Your task to perform on an android device: choose inbox layout in the gmail app Image 0: 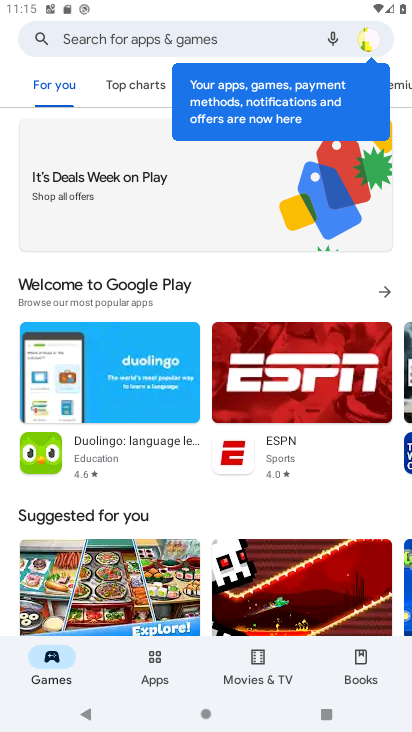
Step 0: press home button
Your task to perform on an android device: choose inbox layout in the gmail app Image 1: 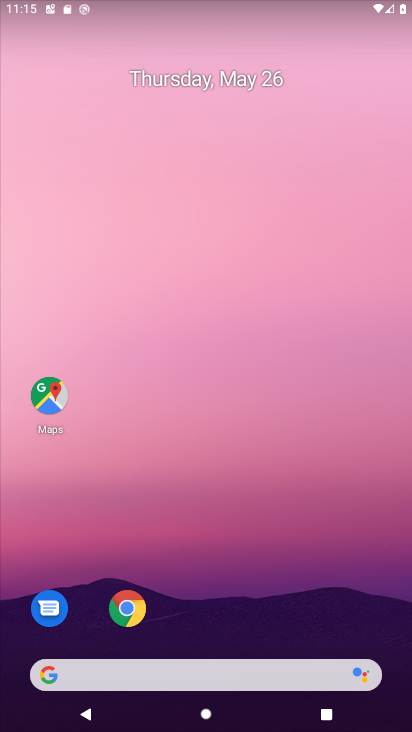
Step 1: drag from (396, 679) to (351, 193)
Your task to perform on an android device: choose inbox layout in the gmail app Image 2: 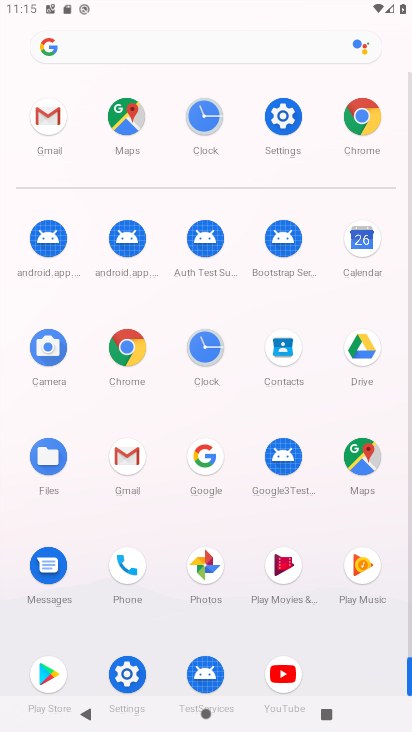
Step 2: click (126, 460)
Your task to perform on an android device: choose inbox layout in the gmail app Image 3: 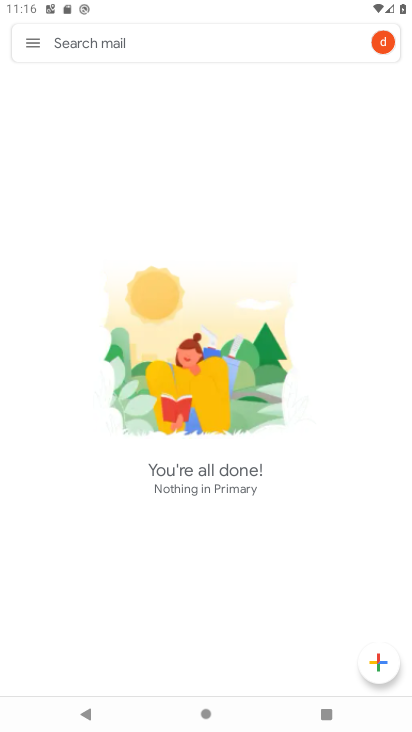
Step 3: click (36, 50)
Your task to perform on an android device: choose inbox layout in the gmail app Image 4: 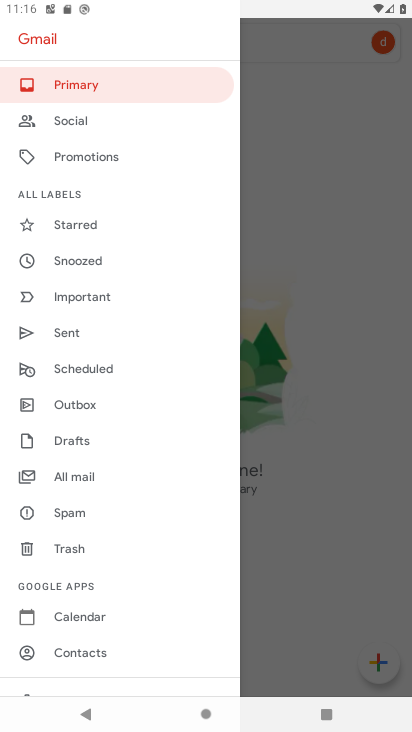
Step 4: click (104, 86)
Your task to perform on an android device: choose inbox layout in the gmail app Image 5: 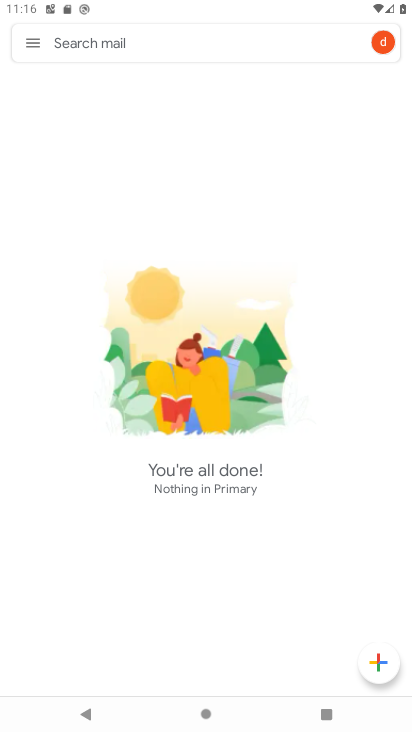
Step 5: click (36, 41)
Your task to perform on an android device: choose inbox layout in the gmail app Image 6: 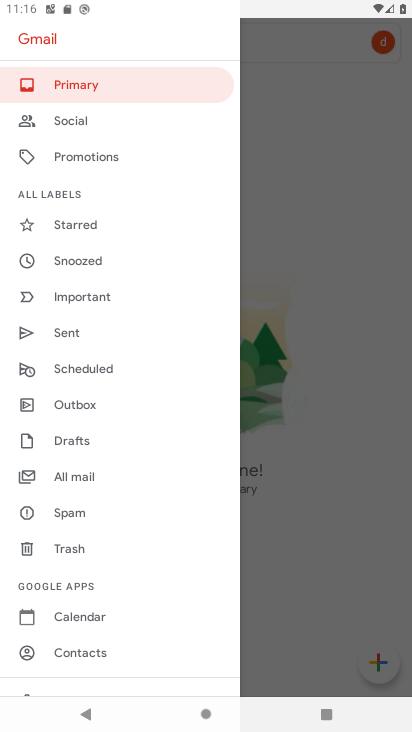
Step 6: click (92, 88)
Your task to perform on an android device: choose inbox layout in the gmail app Image 7: 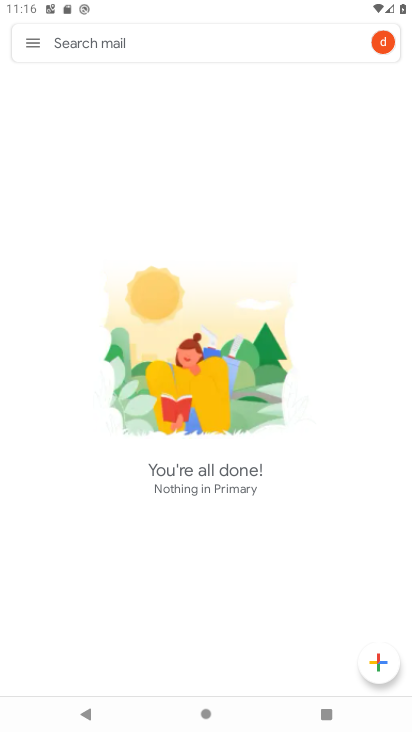
Step 7: click (31, 45)
Your task to perform on an android device: choose inbox layout in the gmail app Image 8: 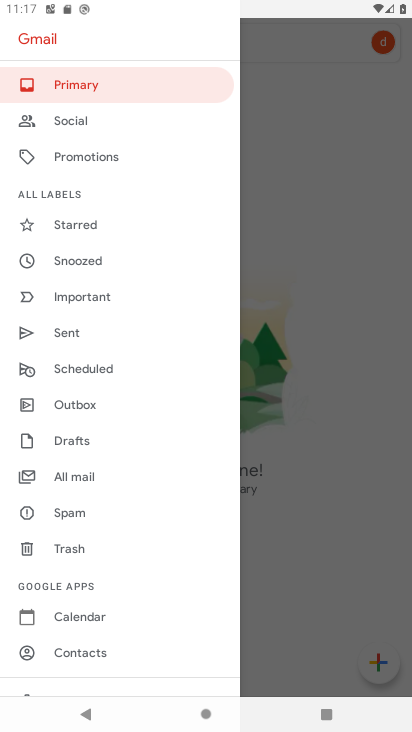
Step 8: drag from (183, 615) to (172, 305)
Your task to perform on an android device: choose inbox layout in the gmail app Image 9: 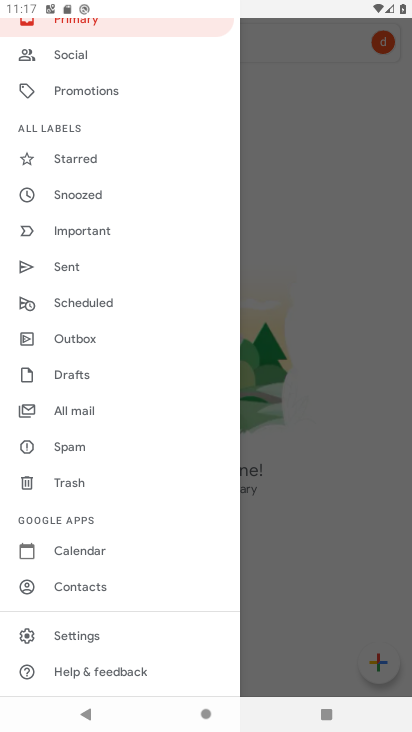
Step 9: click (74, 633)
Your task to perform on an android device: choose inbox layout in the gmail app Image 10: 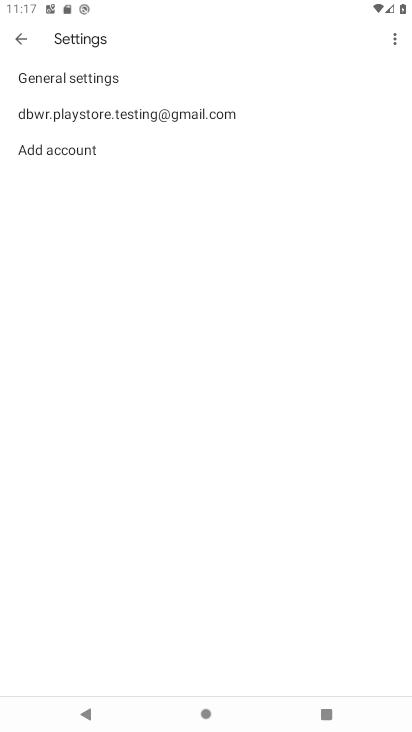
Step 10: click (72, 117)
Your task to perform on an android device: choose inbox layout in the gmail app Image 11: 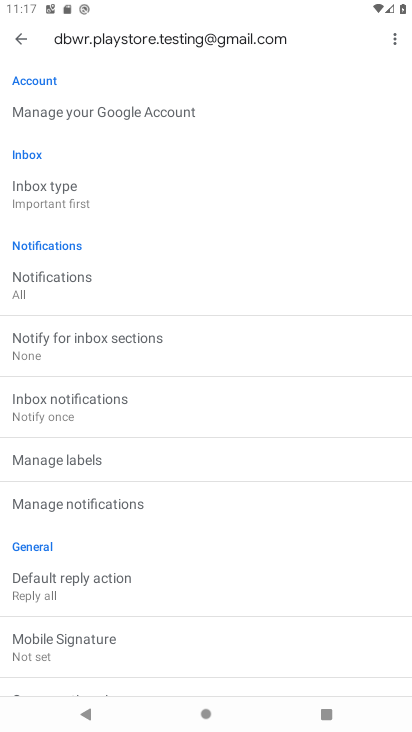
Step 11: click (53, 194)
Your task to perform on an android device: choose inbox layout in the gmail app Image 12: 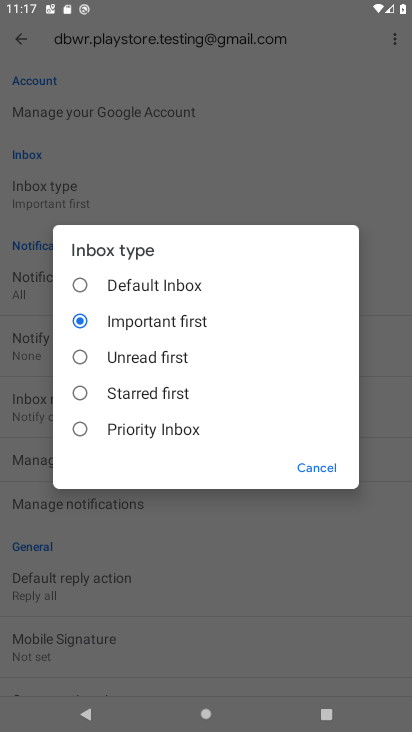
Step 12: click (76, 355)
Your task to perform on an android device: choose inbox layout in the gmail app Image 13: 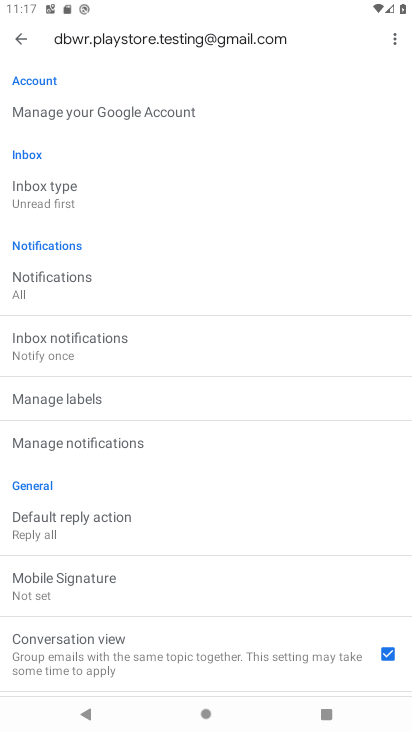
Step 13: task complete